Your task to perform on an android device: toggle notification dots Image 0: 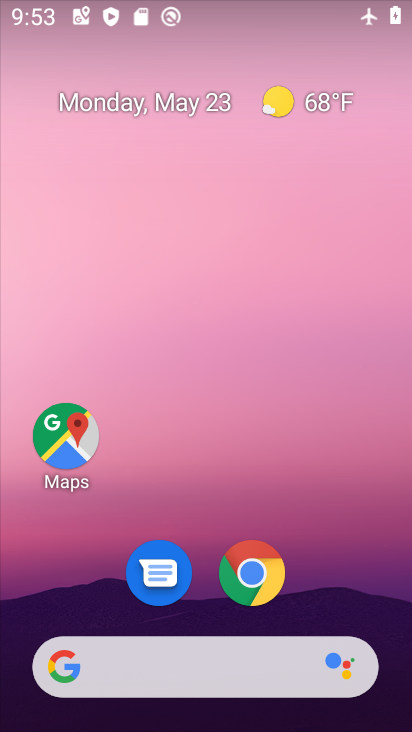
Step 0: drag from (209, 688) to (235, 200)
Your task to perform on an android device: toggle notification dots Image 1: 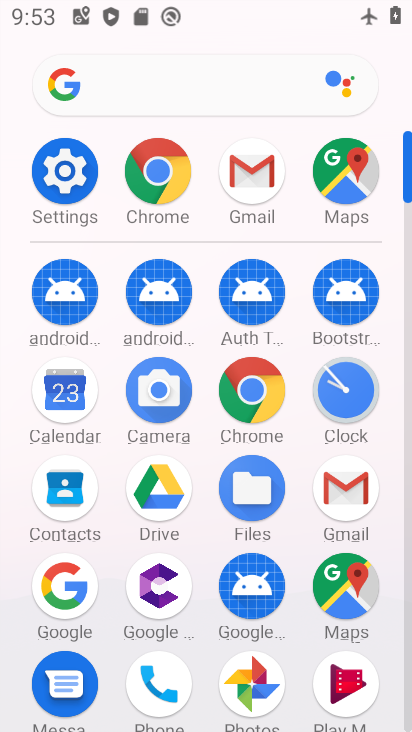
Step 1: click (92, 179)
Your task to perform on an android device: toggle notification dots Image 2: 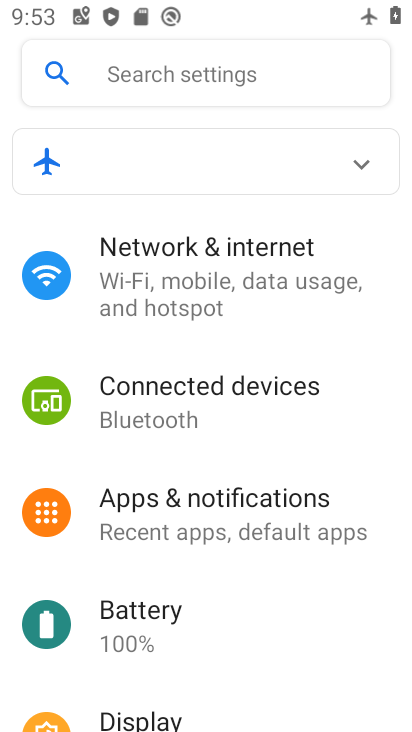
Step 2: drag from (230, 571) to (295, 217)
Your task to perform on an android device: toggle notification dots Image 3: 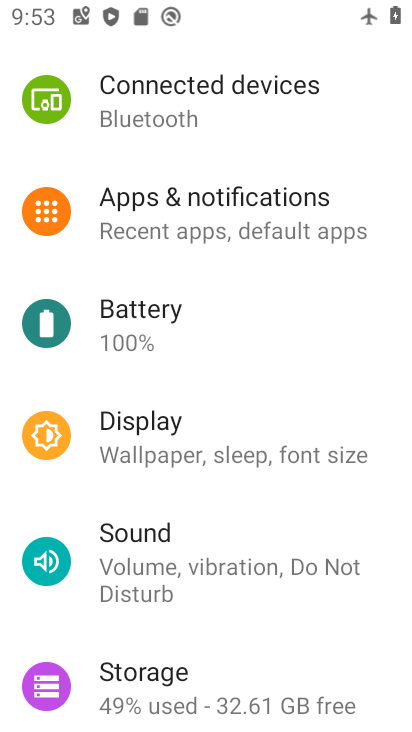
Step 3: click (275, 229)
Your task to perform on an android device: toggle notification dots Image 4: 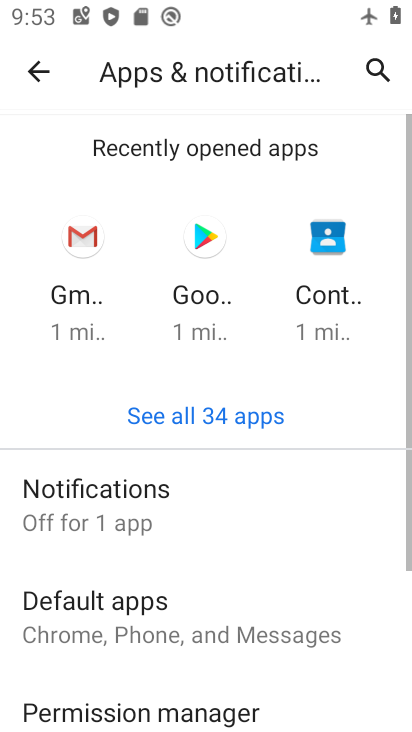
Step 4: drag from (164, 555) to (219, 259)
Your task to perform on an android device: toggle notification dots Image 5: 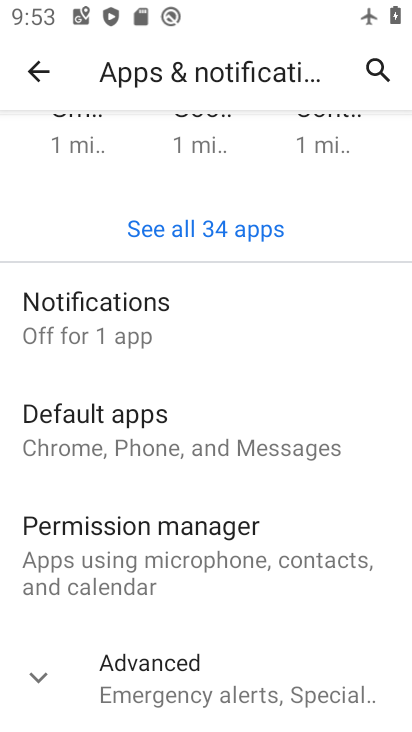
Step 5: click (220, 313)
Your task to perform on an android device: toggle notification dots Image 6: 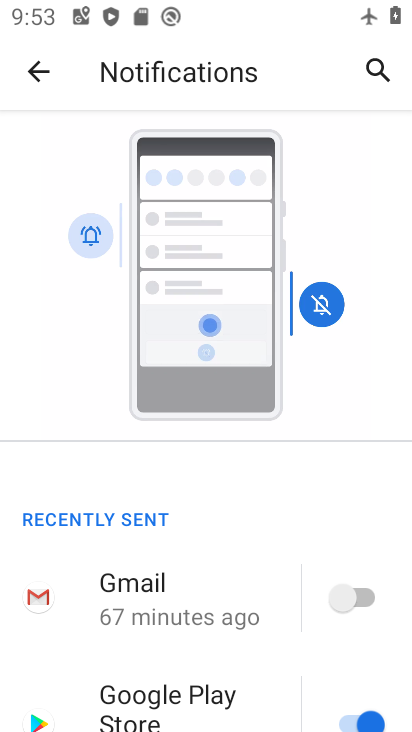
Step 6: drag from (185, 592) to (248, 346)
Your task to perform on an android device: toggle notification dots Image 7: 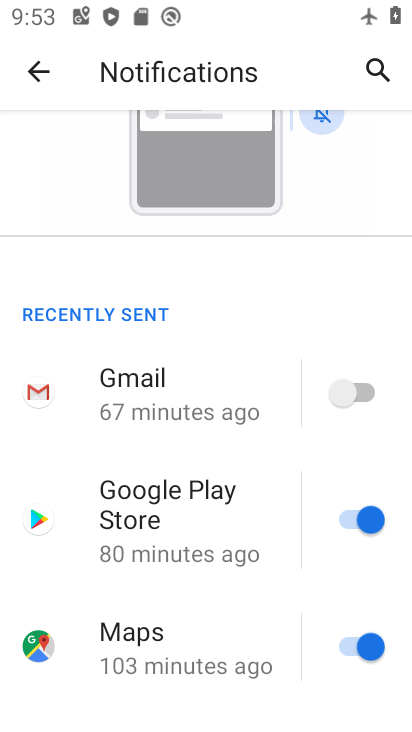
Step 7: drag from (205, 489) to (231, 338)
Your task to perform on an android device: toggle notification dots Image 8: 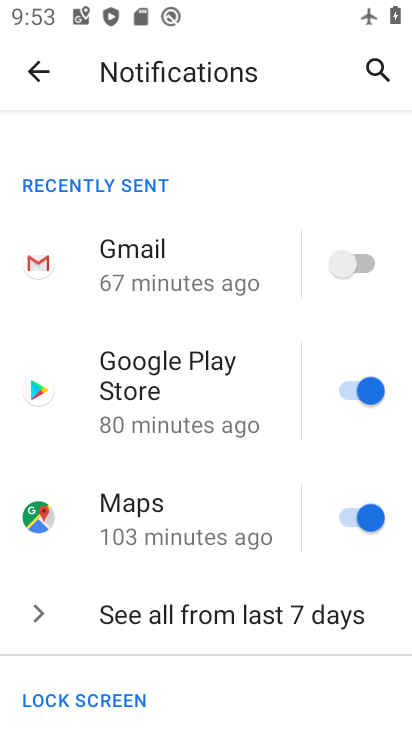
Step 8: drag from (189, 618) to (283, 177)
Your task to perform on an android device: toggle notification dots Image 9: 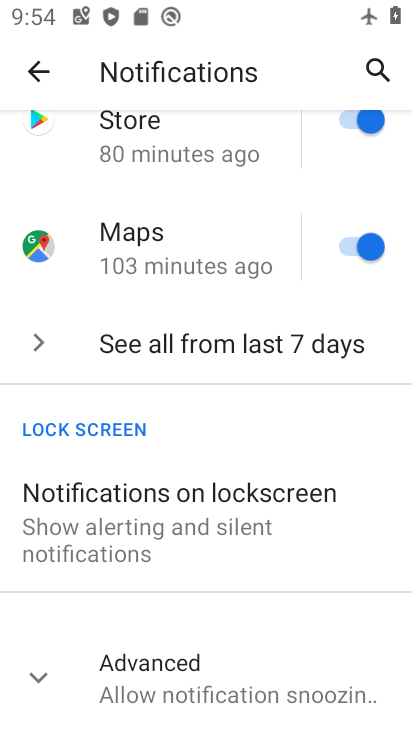
Step 9: click (174, 667)
Your task to perform on an android device: toggle notification dots Image 10: 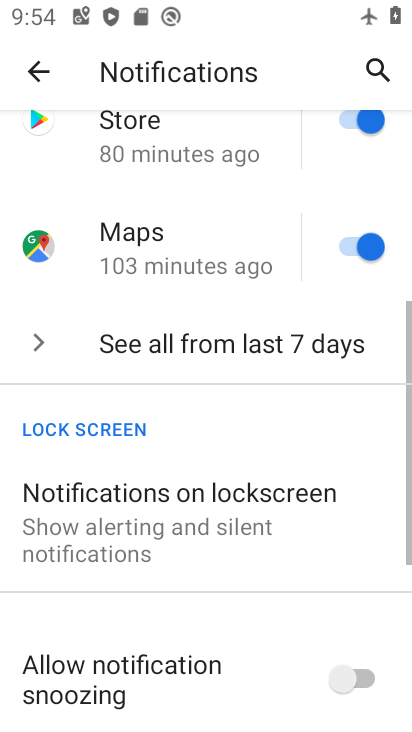
Step 10: drag from (174, 668) to (232, 281)
Your task to perform on an android device: toggle notification dots Image 11: 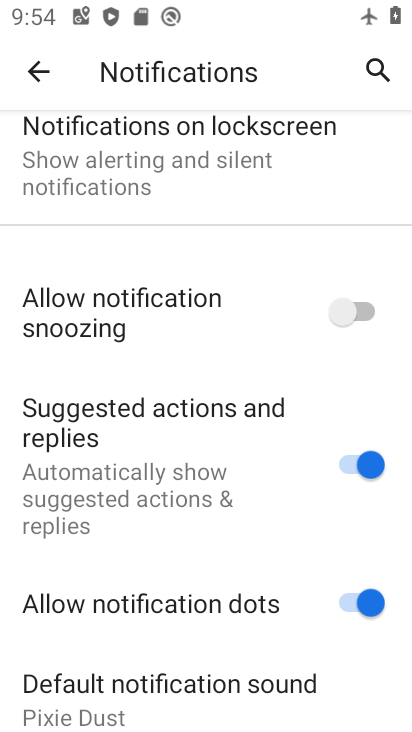
Step 11: click (234, 608)
Your task to perform on an android device: toggle notification dots Image 12: 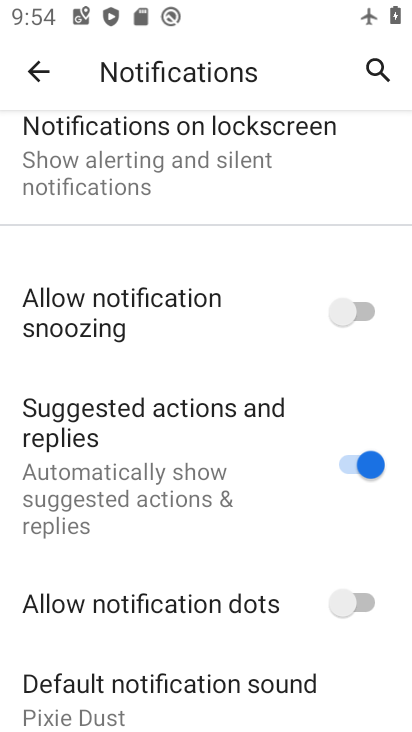
Step 12: task complete